Your task to perform on an android device: Open my contact list Image 0: 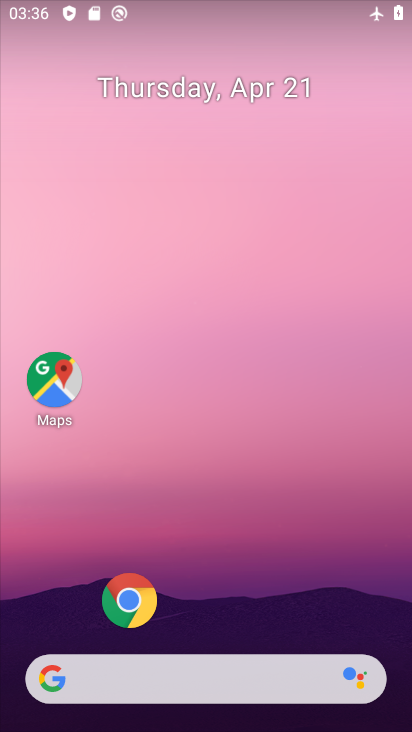
Step 0: drag from (307, 571) to (301, 116)
Your task to perform on an android device: Open my contact list Image 1: 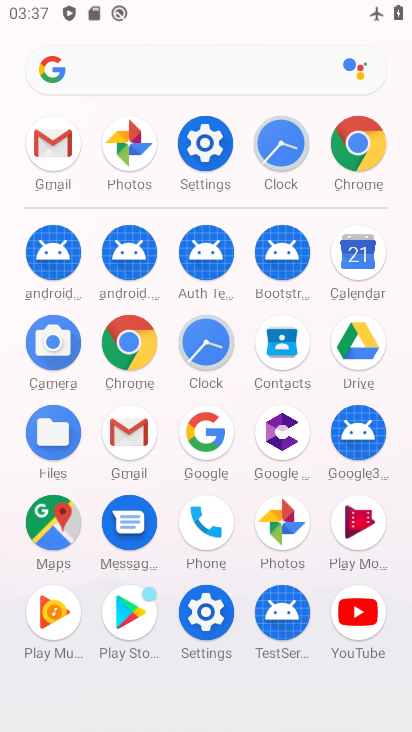
Step 1: click (280, 355)
Your task to perform on an android device: Open my contact list Image 2: 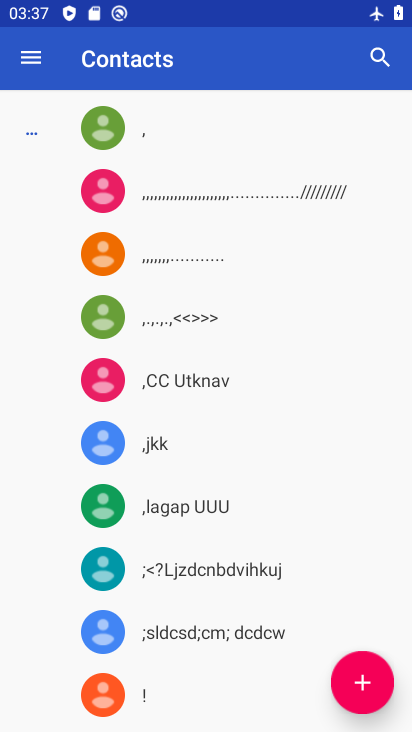
Step 2: click (34, 60)
Your task to perform on an android device: Open my contact list Image 3: 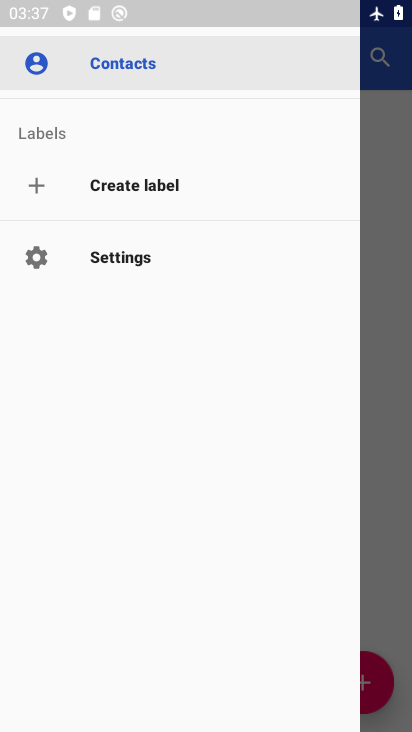
Step 3: click (391, 362)
Your task to perform on an android device: Open my contact list Image 4: 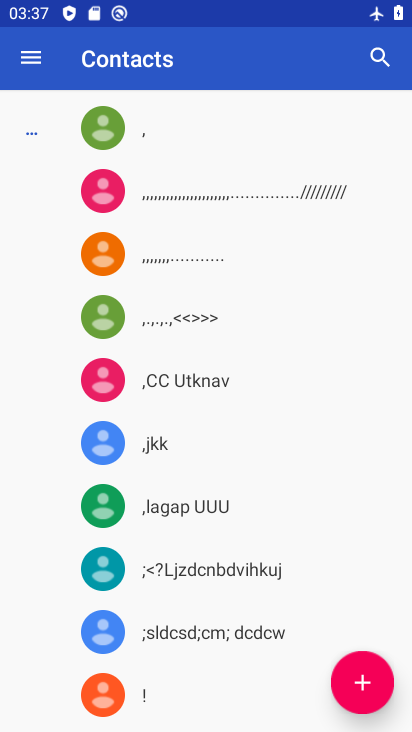
Step 4: task complete